Your task to perform on an android device: Search for panasonic triple a on target, select the first entry, add it to the cart, then select checkout. Image 0: 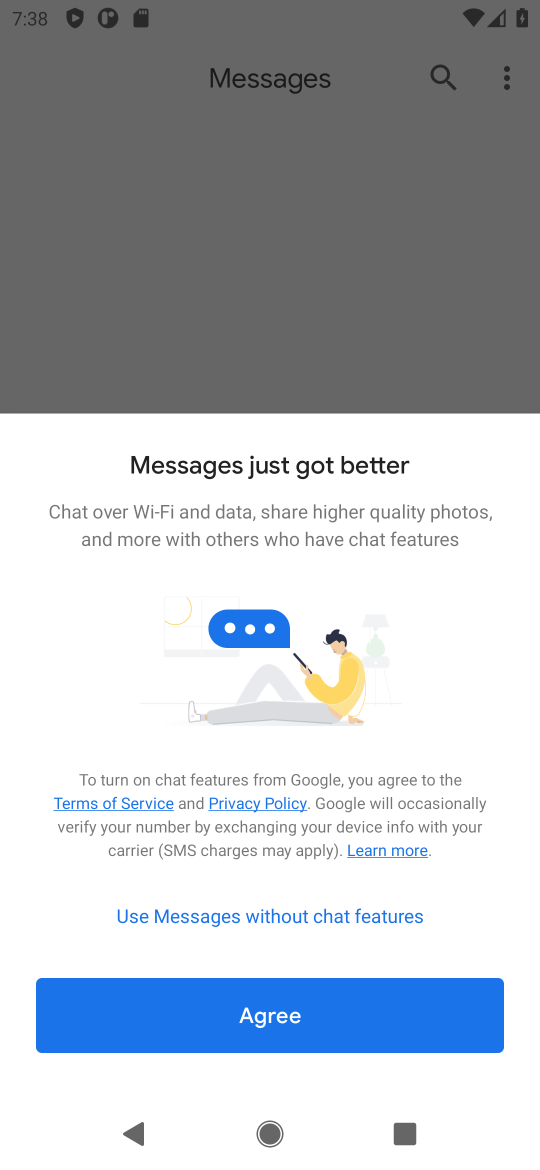
Step 0: press home button
Your task to perform on an android device: Search for panasonic triple a on target, select the first entry, add it to the cart, then select checkout. Image 1: 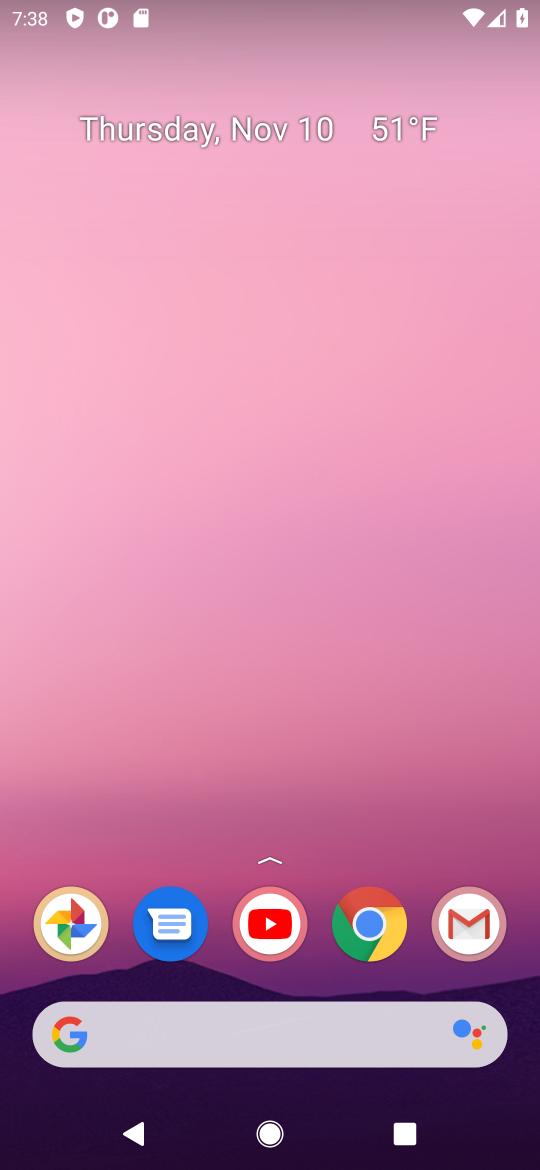
Step 1: click (367, 929)
Your task to perform on an android device: Search for panasonic triple a on target, select the first entry, add it to the cart, then select checkout. Image 2: 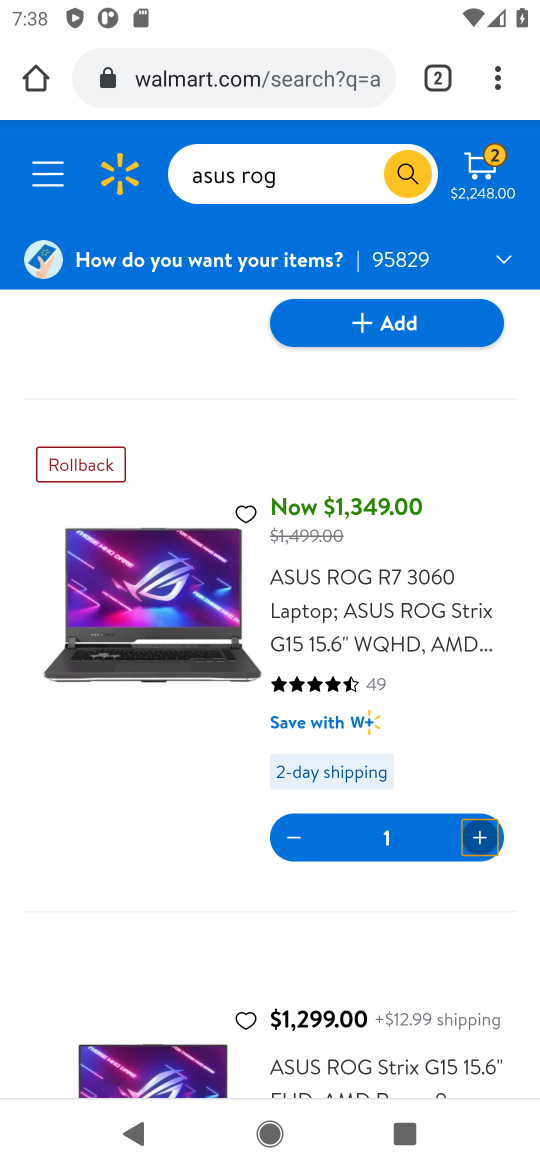
Step 2: click (267, 87)
Your task to perform on an android device: Search for panasonic triple a on target, select the first entry, add it to the cart, then select checkout. Image 3: 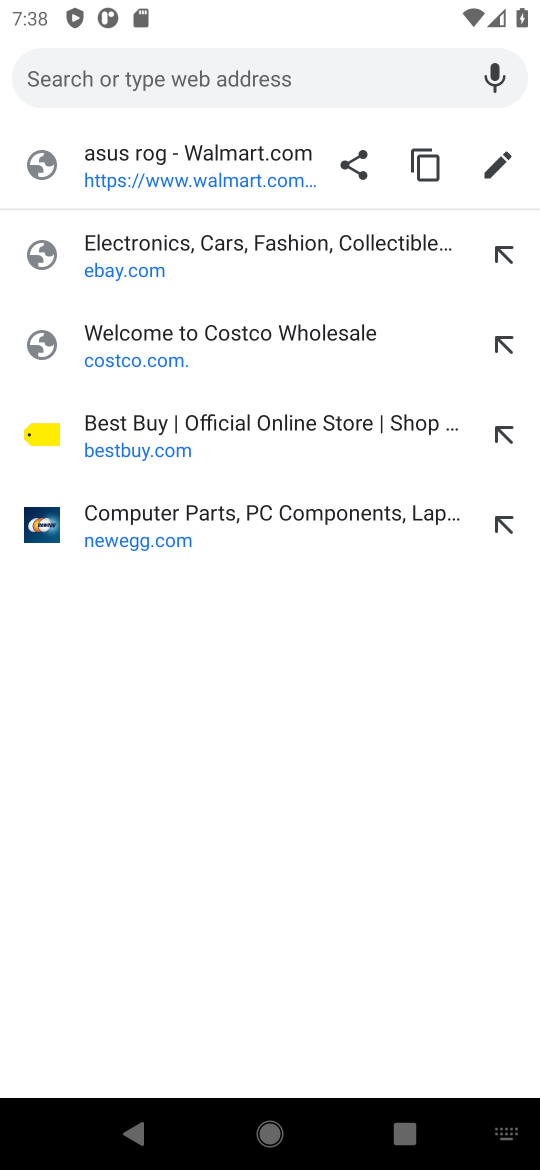
Step 3: type "target.com"
Your task to perform on an android device: Search for panasonic triple a on target, select the first entry, add it to the cart, then select checkout. Image 4: 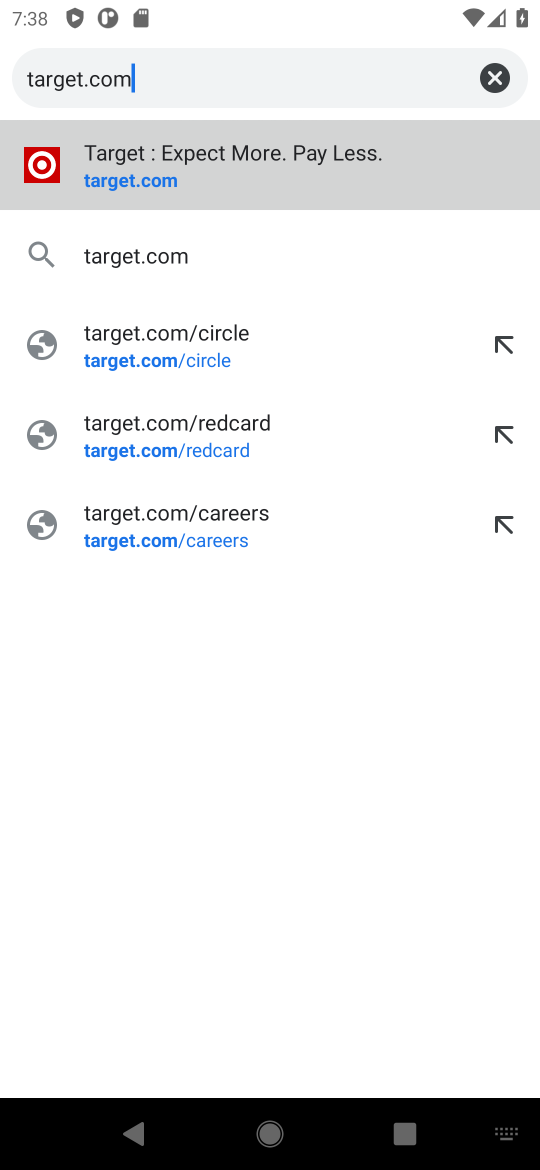
Step 4: click (111, 174)
Your task to perform on an android device: Search for panasonic triple a on target, select the first entry, add it to the cart, then select checkout. Image 5: 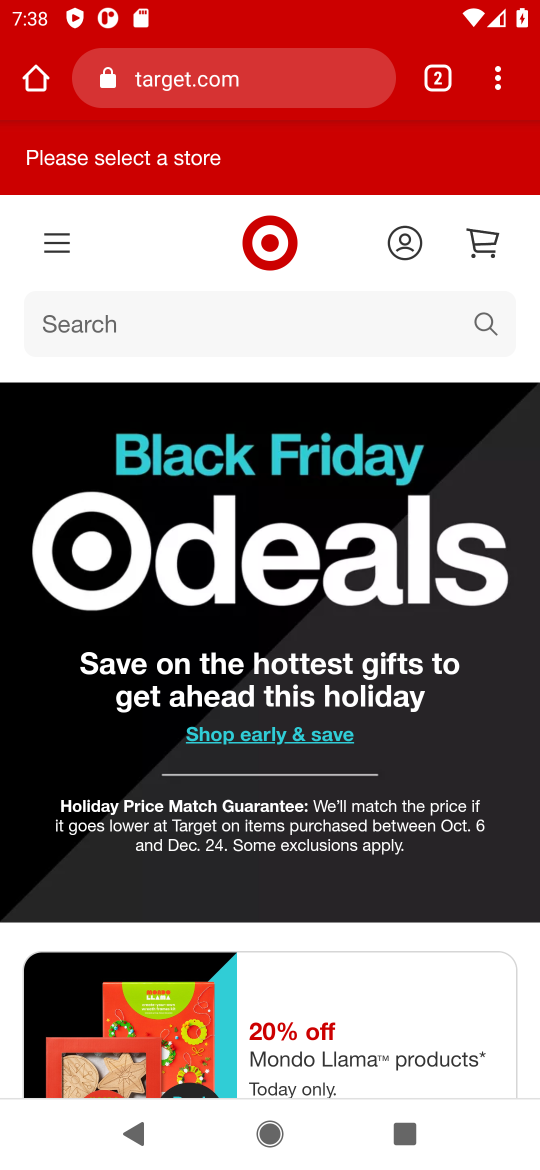
Step 5: click (480, 327)
Your task to perform on an android device: Search for panasonic triple a on target, select the first entry, add it to the cart, then select checkout. Image 6: 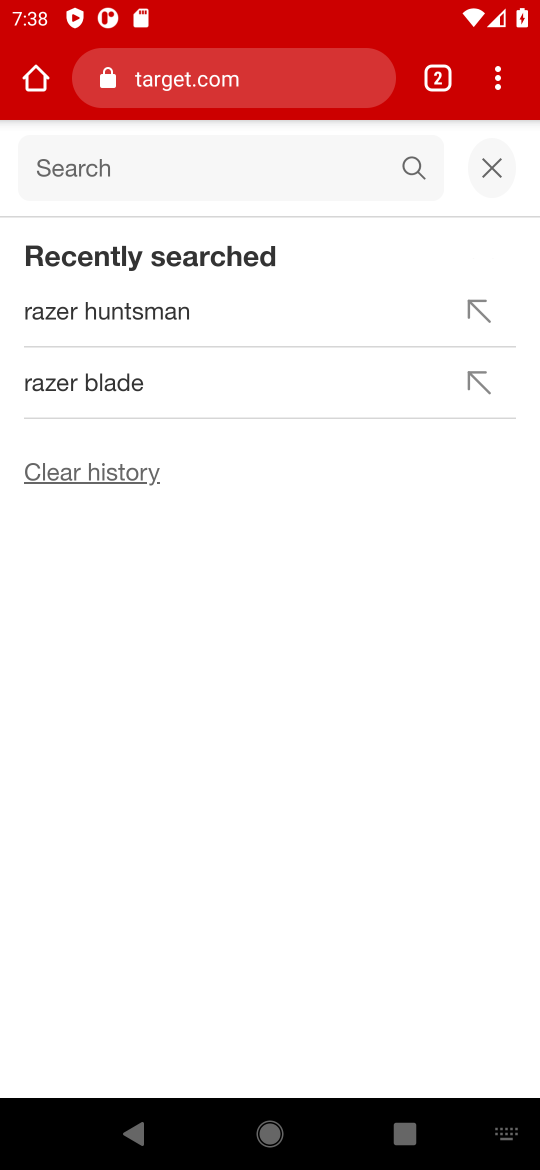
Step 6: type "panasonic triple a"
Your task to perform on an android device: Search for panasonic triple a on target, select the first entry, add it to the cart, then select checkout. Image 7: 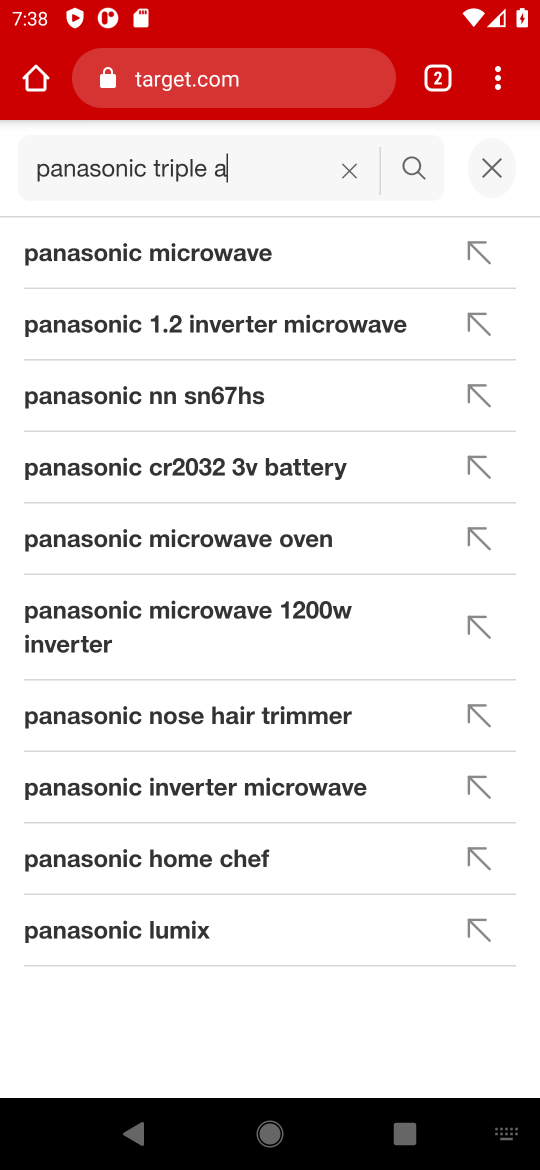
Step 7: click (412, 162)
Your task to perform on an android device: Search for panasonic triple a on target, select the first entry, add it to the cart, then select checkout. Image 8: 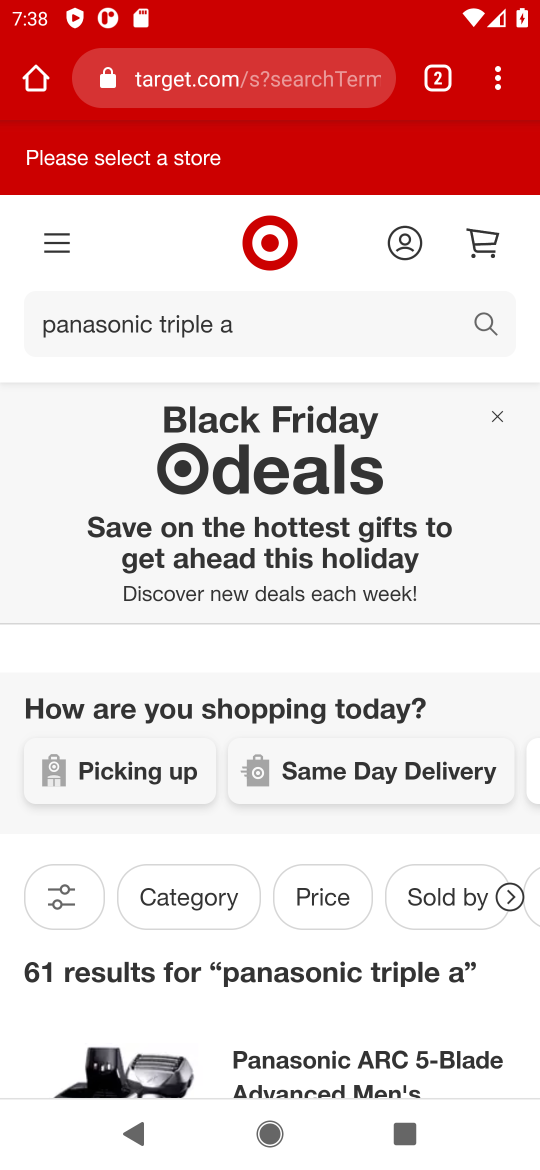
Step 8: task complete